Your task to perform on an android device: Go to Amazon Image 0: 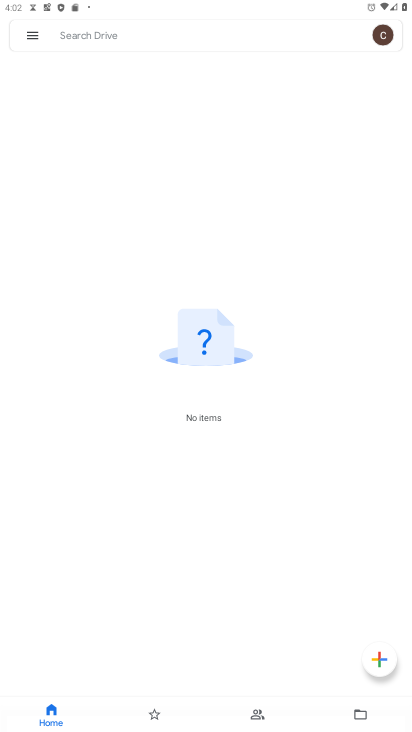
Step 0: press home button
Your task to perform on an android device: Go to Amazon Image 1: 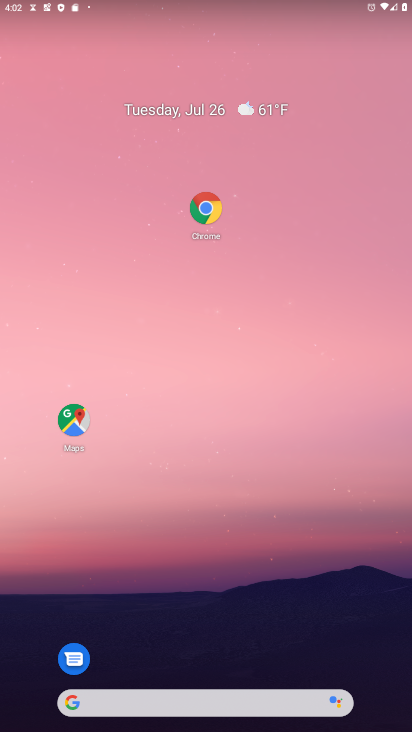
Step 1: click (202, 215)
Your task to perform on an android device: Go to Amazon Image 2: 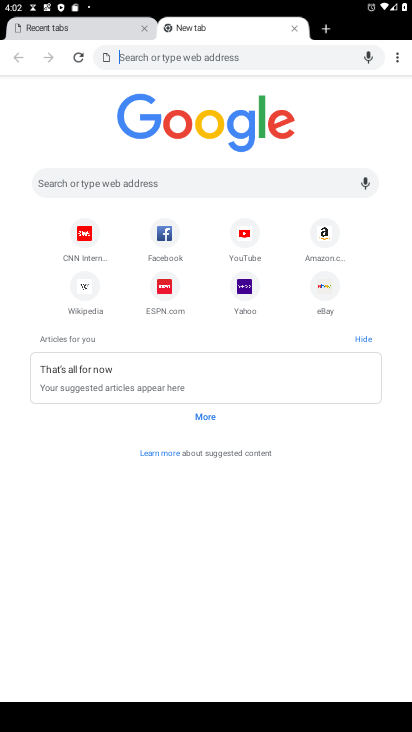
Step 2: click (314, 245)
Your task to perform on an android device: Go to Amazon Image 3: 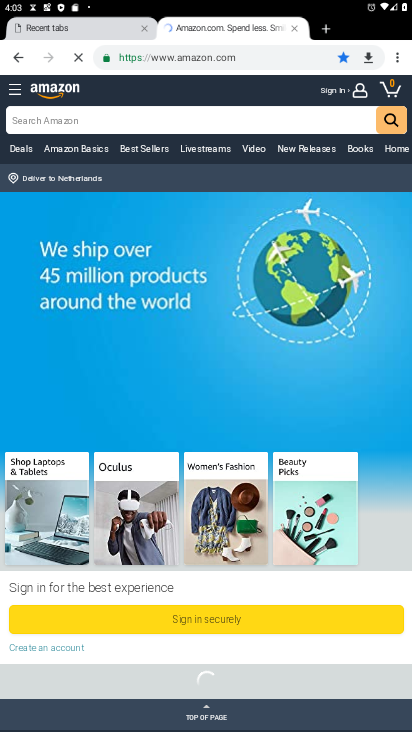
Step 3: task complete